Your task to perform on an android device: turn off location Image 0: 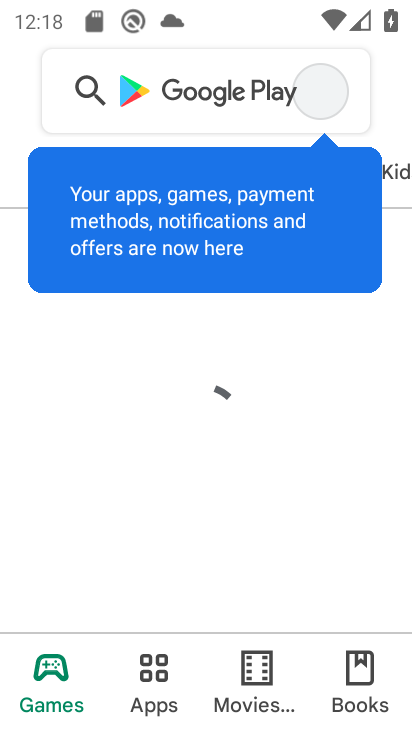
Step 0: press home button
Your task to perform on an android device: turn off location Image 1: 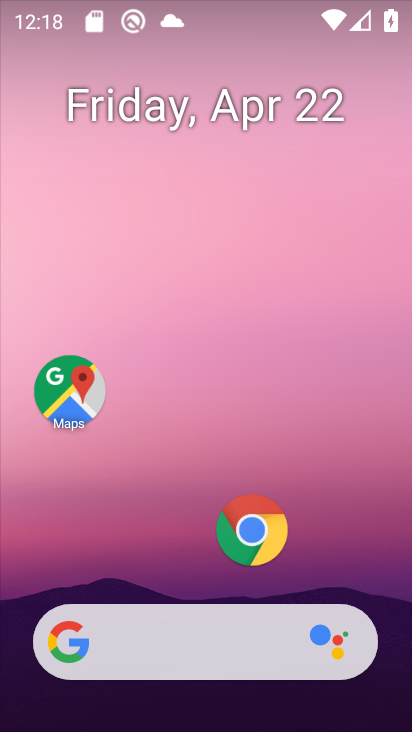
Step 1: drag from (210, 653) to (211, 109)
Your task to perform on an android device: turn off location Image 2: 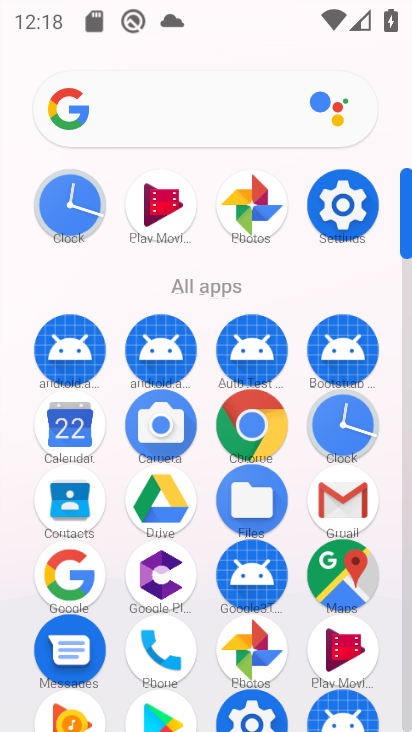
Step 2: click (341, 205)
Your task to perform on an android device: turn off location Image 3: 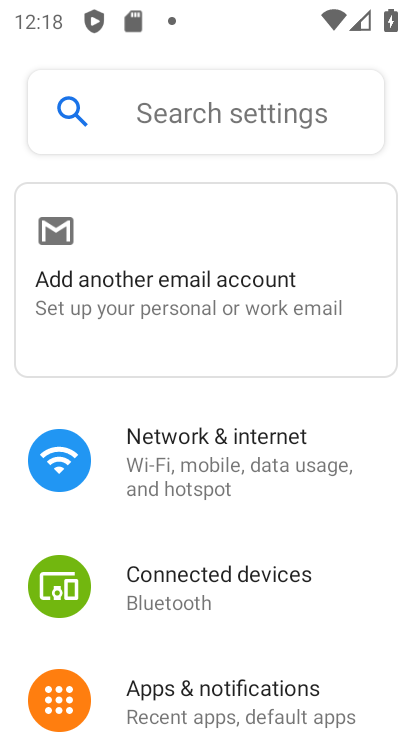
Step 3: drag from (213, 663) to (202, 201)
Your task to perform on an android device: turn off location Image 4: 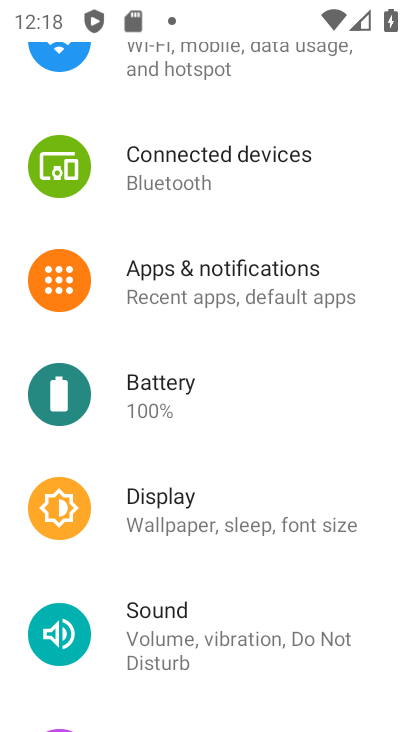
Step 4: drag from (209, 690) to (204, 253)
Your task to perform on an android device: turn off location Image 5: 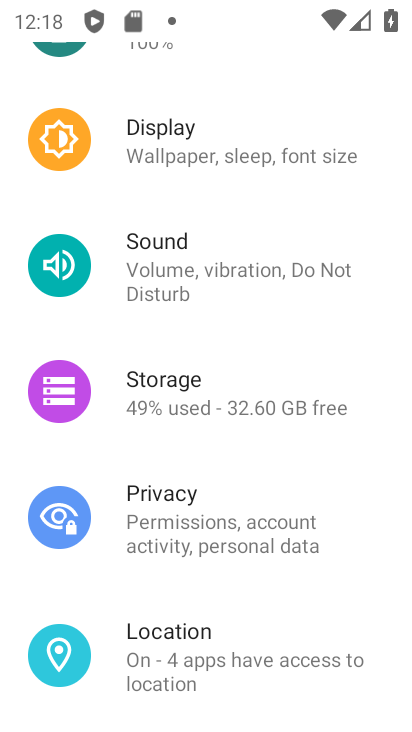
Step 5: click (182, 640)
Your task to perform on an android device: turn off location Image 6: 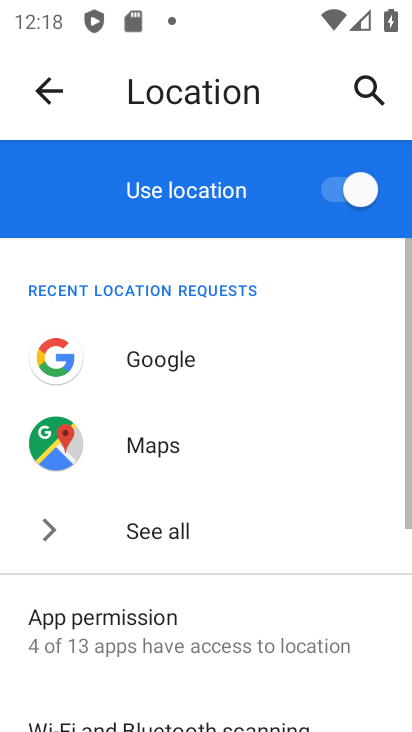
Step 6: click (332, 186)
Your task to perform on an android device: turn off location Image 7: 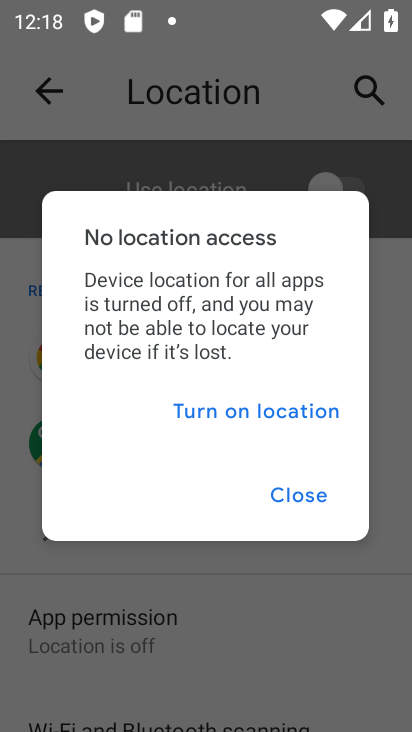
Step 7: click (299, 497)
Your task to perform on an android device: turn off location Image 8: 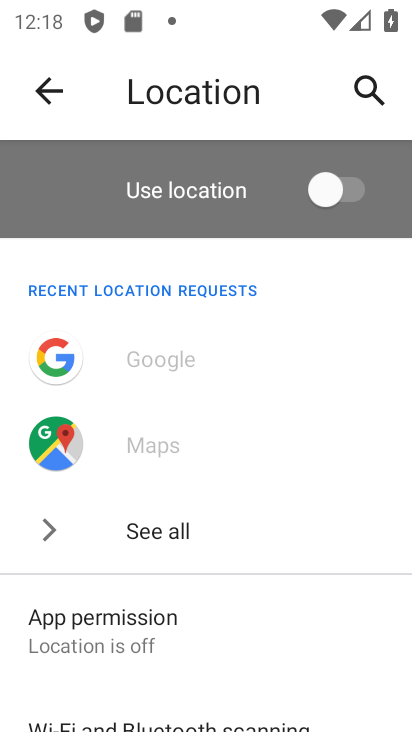
Step 8: task complete